Your task to perform on an android device: clear all cookies in the chrome app Image 0: 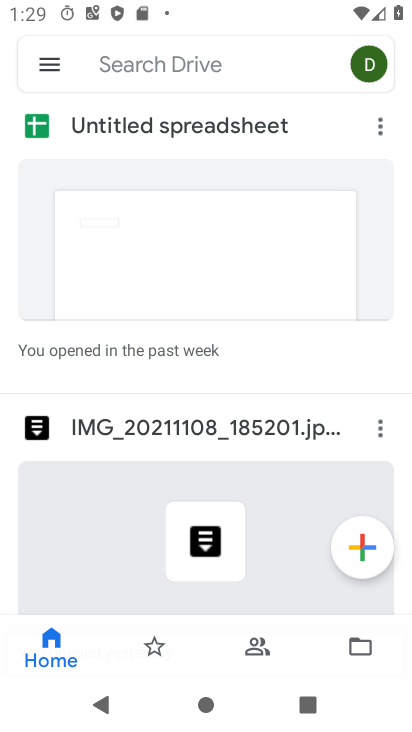
Step 0: press home button
Your task to perform on an android device: clear all cookies in the chrome app Image 1: 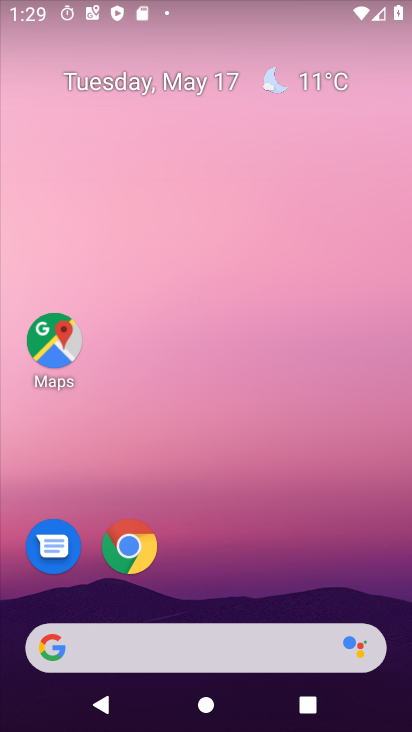
Step 1: click (135, 559)
Your task to perform on an android device: clear all cookies in the chrome app Image 2: 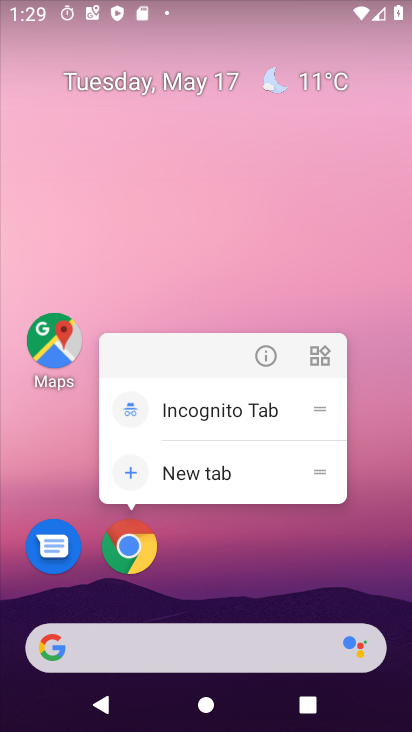
Step 2: click (135, 554)
Your task to perform on an android device: clear all cookies in the chrome app Image 3: 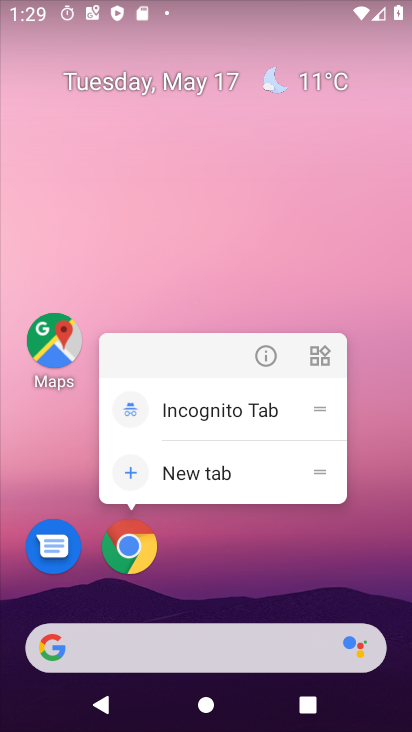
Step 3: click (130, 555)
Your task to perform on an android device: clear all cookies in the chrome app Image 4: 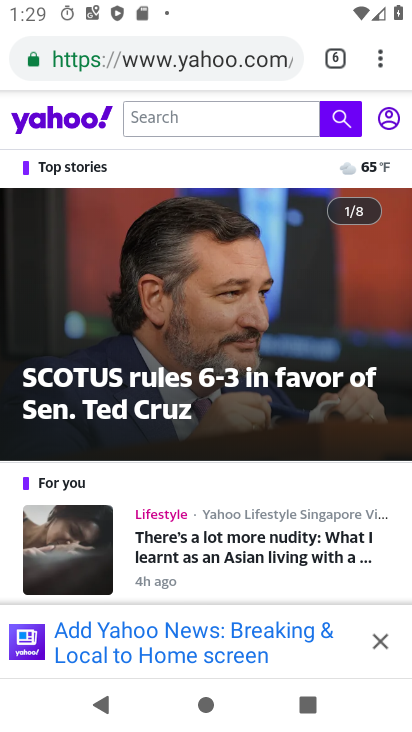
Step 4: drag from (376, 62) to (278, 579)
Your task to perform on an android device: clear all cookies in the chrome app Image 5: 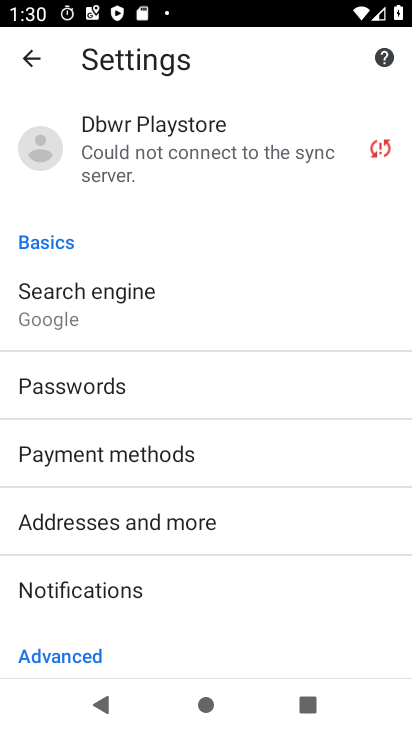
Step 5: drag from (206, 608) to (365, 254)
Your task to perform on an android device: clear all cookies in the chrome app Image 6: 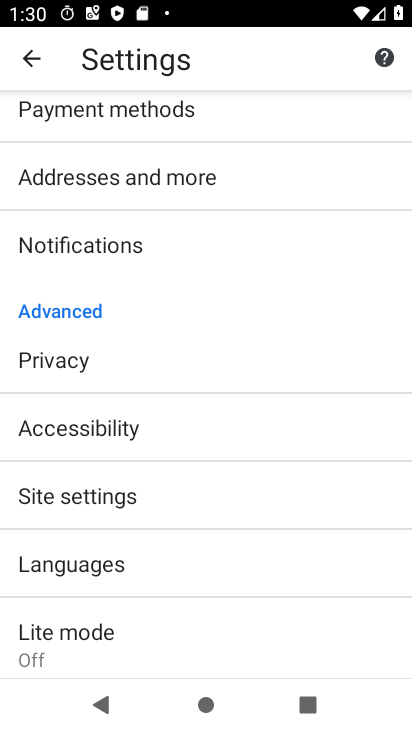
Step 6: click (70, 369)
Your task to perform on an android device: clear all cookies in the chrome app Image 7: 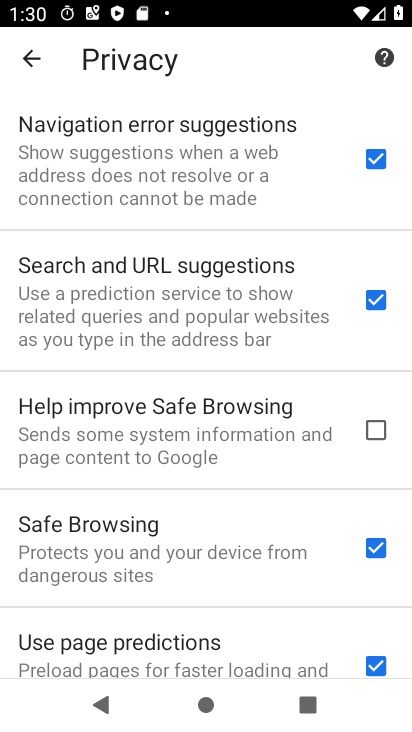
Step 7: drag from (224, 632) to (365, 175)
Your task to perform on an android device: clear all cookies in the chrome app Image 8: 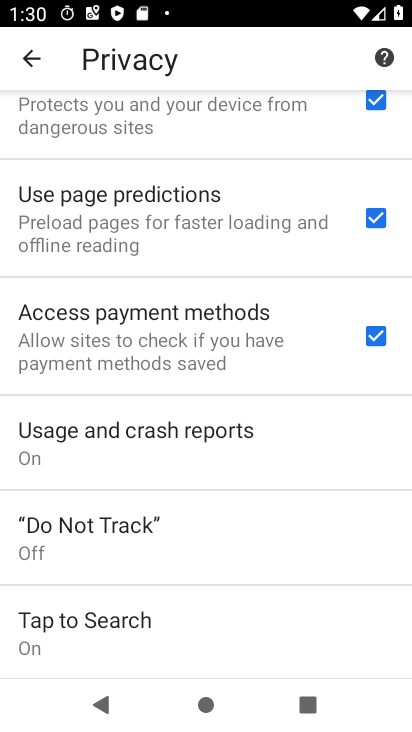
Step 8: drag from (159, 604) to (308, 99)
Your task to perform on an android device: clear all cookies in the chrome app Image 9: 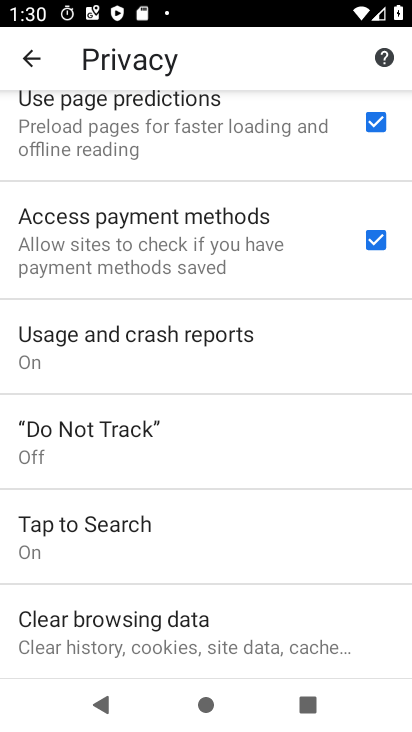
Step 9: click (186, 627)
Your task to perform on an android device: clear all cookies in the chrome app Image 10: 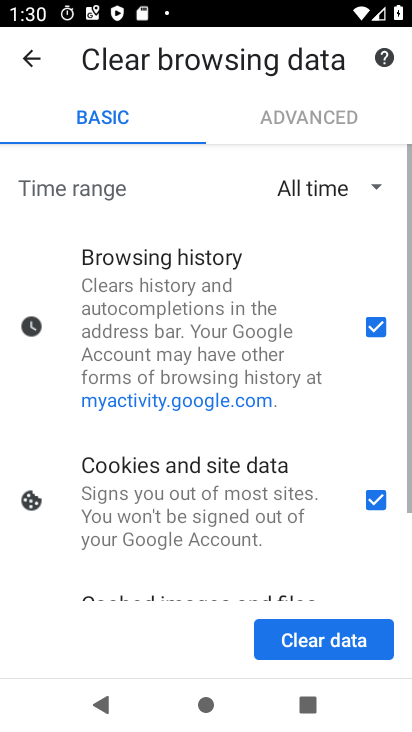
Step 10: click (376, 322)
Your task to perform on an android device: clear all cookies in the chrome app Image 11: 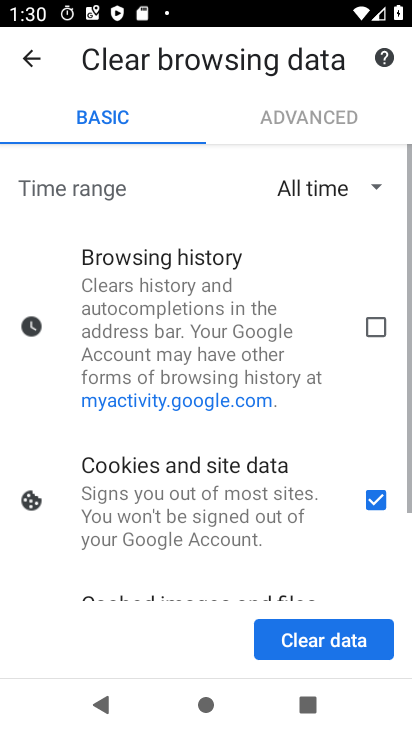
Step 11: drag from (187, 553) to (329, 164)
Your task to perform on an android device: clear all cookies in the chrome app Image 12: 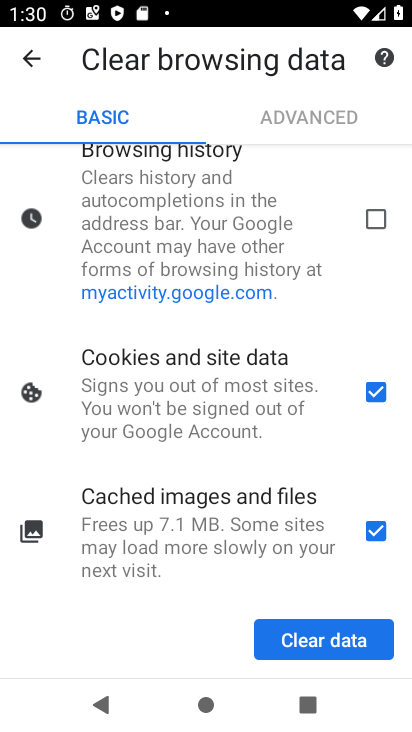
Step 12: click (373, 537)
Your task to perform on an android device: clear all cookies in the chrome app Image 13: 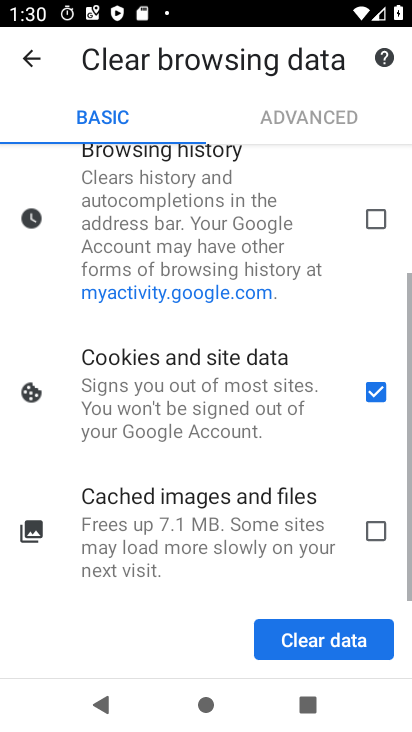
Step 13: click (318, 641)
Your task to perform on an android device: clear all cookies in the chrome app Image 14: 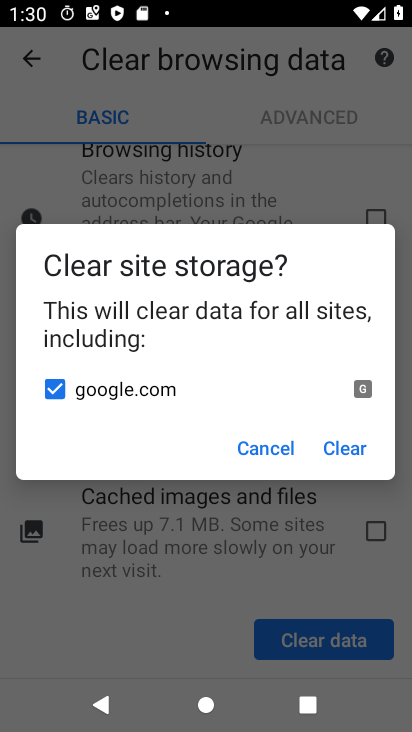
Step 14: click (355, 449)
Your task to perform on an android device: clear all cookies in the chrome app Image 15: 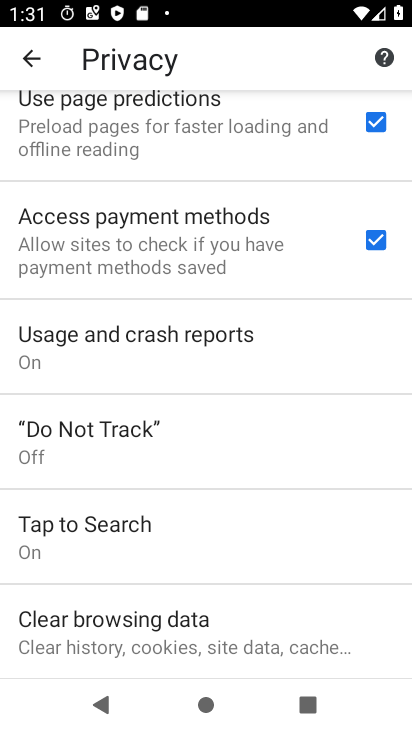
Step 15: task complete